Your task to perform on an android device: Go to wifi settings Image 0: 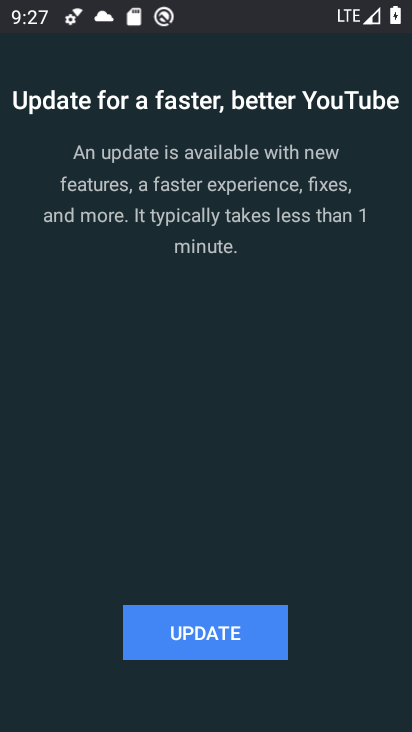
Step 0: press home button
Your task to perform on an android device: Go to wifi settings Image 1: 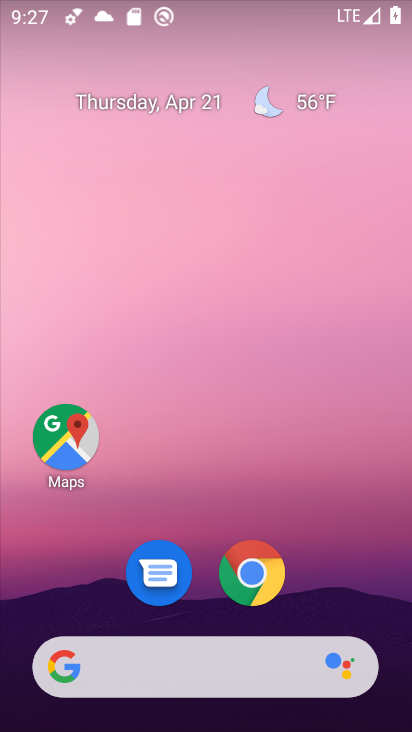
Step 1: drag from (335, 561) to (380, 153)
Your task to perform on an android device: Go to wifi settings Image 2: 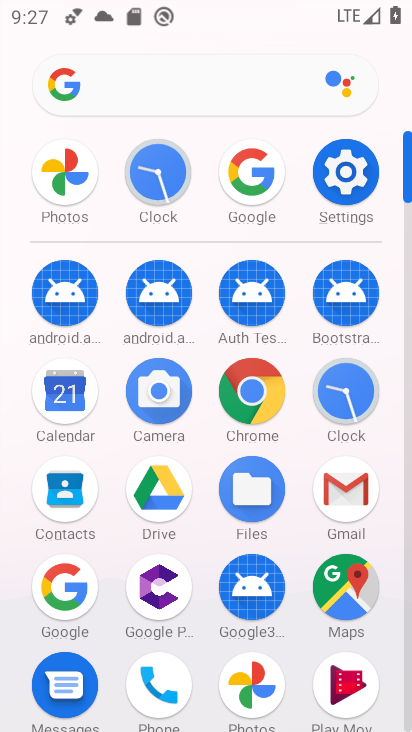
Step 2: click (346, 186)
Your task to perform on an android device: Go to wifi settings Image 3: 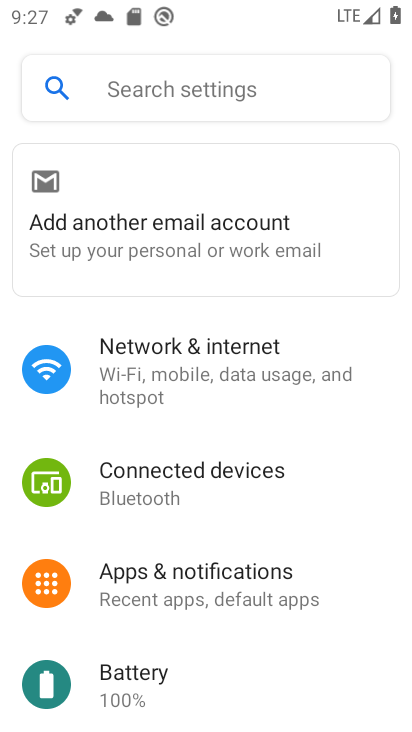
Step 3: click (161, 398)
Your task to perform on an android device: Go to wifi settings Image 4: 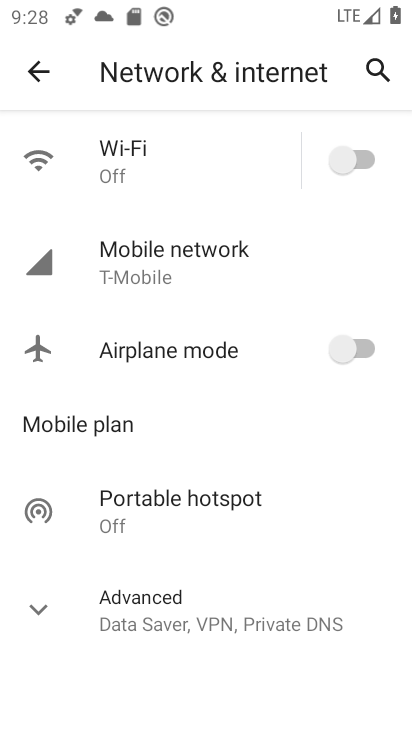
Step 4: click (117, 142)
Your task to perform on an android device: Go to wifi settings Image 5: 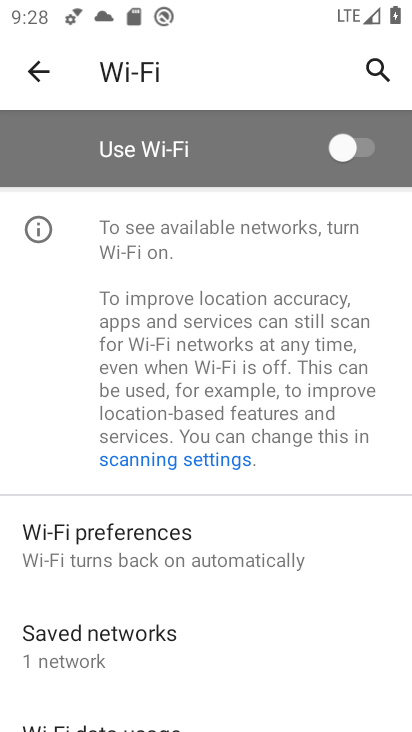
Step 5: task complete